Your task to perform on an android device: Open Wikipedia Image 0: 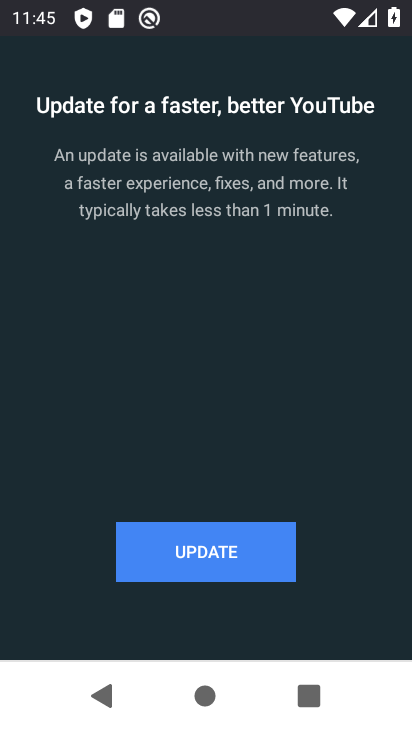
Step 0: press home button
Your task to perform on an android device: Open Wikipedia Image 1: 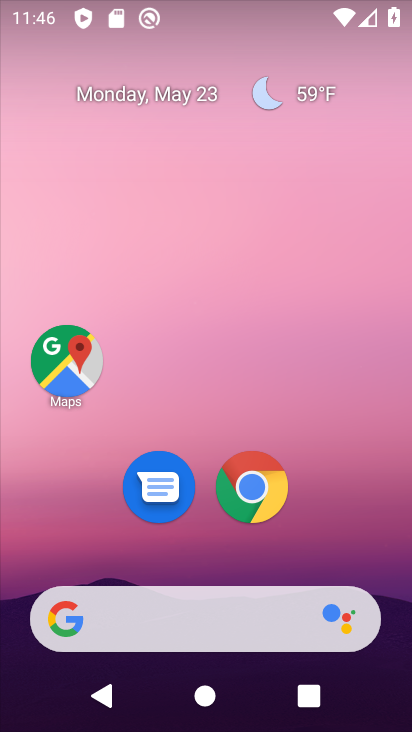
Step 1: click (291, 493)
Your task to perform on an android device: Open Wikipedia Image 2: 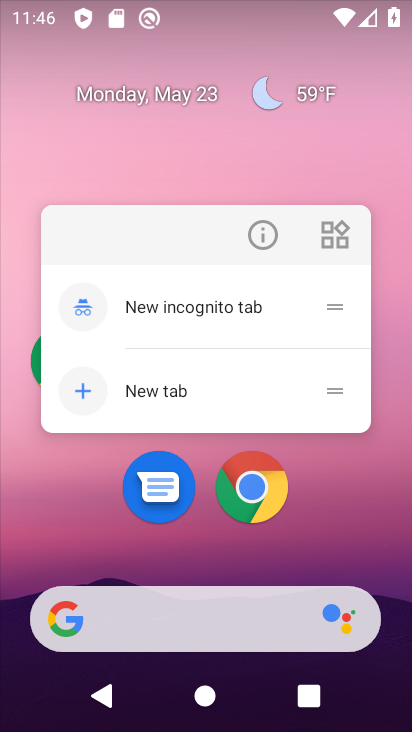
Step 2: click (237, 479)
Your task to perform on an android device: Open Wikipedia Image 3: 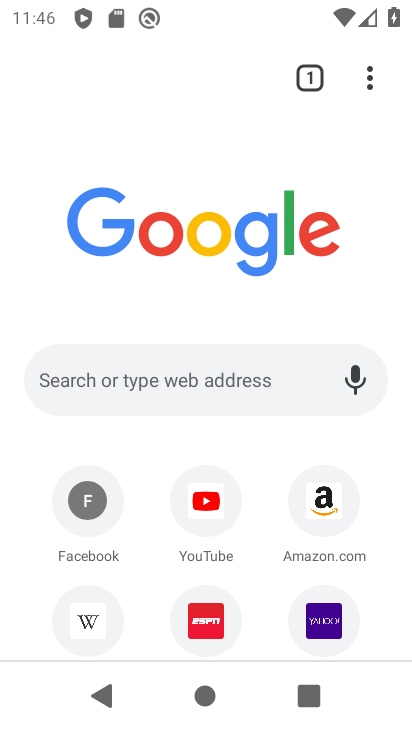
Step 3: click (83, 634)
Your task to perform on an android device: Open Wikipedia Image 4: 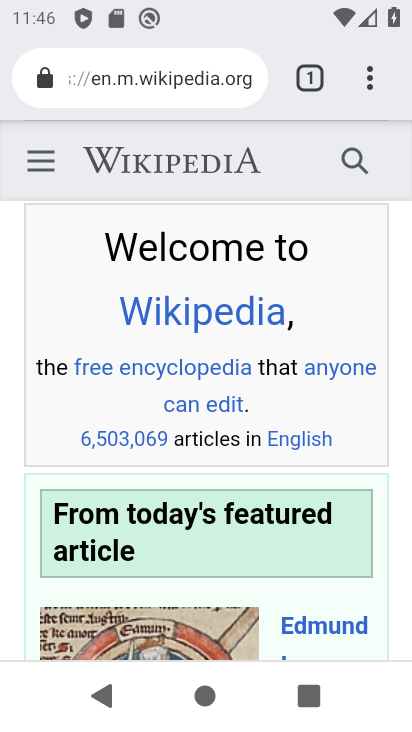
Step 4: task complete